Your task to perform on an android device: set the timer Image 0: 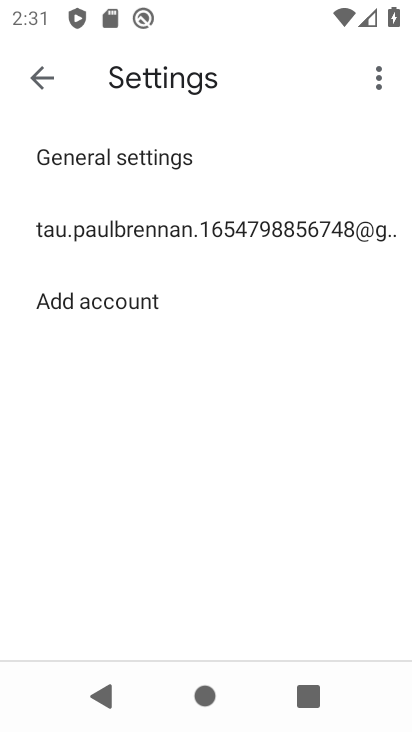
Step 0: press back button
Your task to perform on an android device: set the timer Image 1: 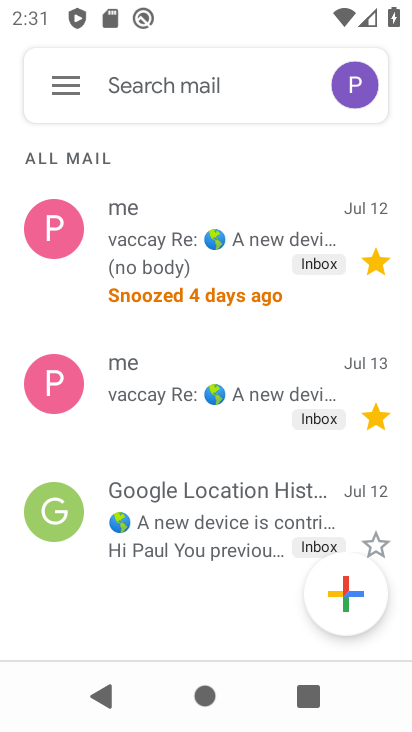
Step 1: press back button
Your task to perform on an android device: set the timer Image 2: 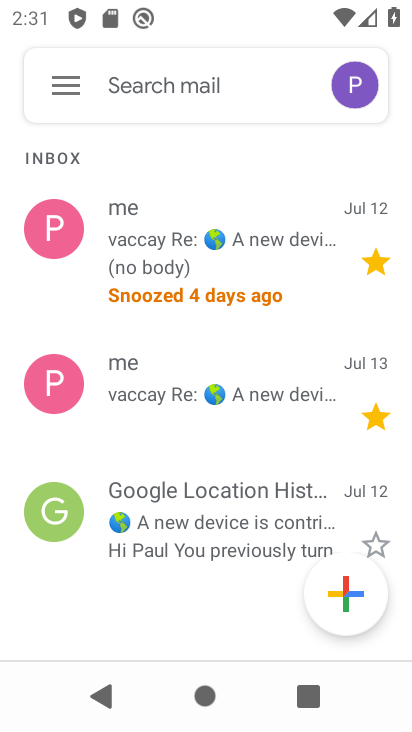
Step 2: press back button
Your task to perform on an android device: set the timer Image 3: 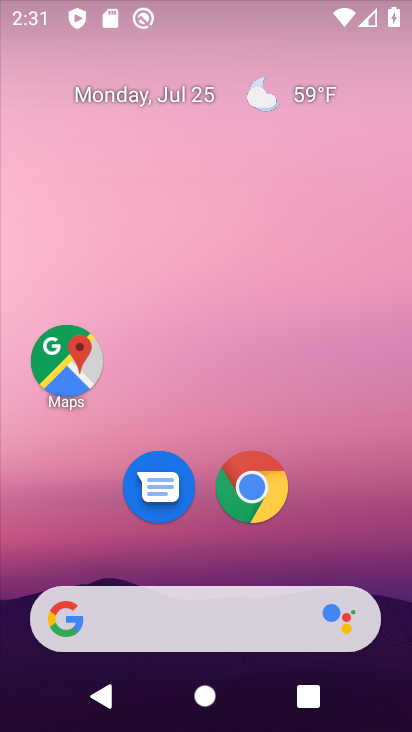
Step 3: drag from (310, 493) to (349, 28)
Your task to perform on an android device: set the timer Image 4: 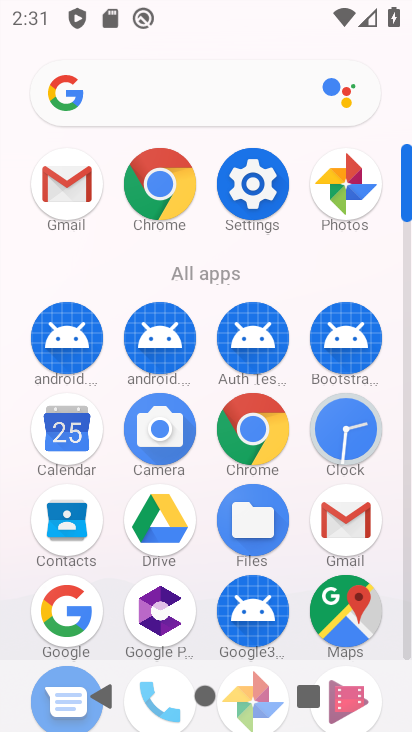
Step 4: click (343, 428)
Your task to perform on an android device: set the timer Image 5: 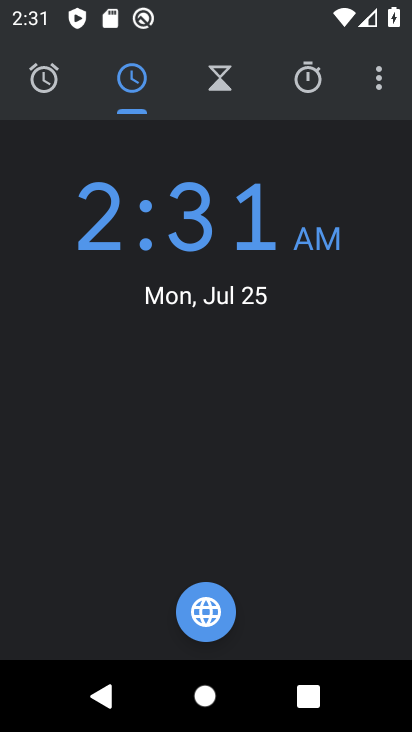
Step 5: click (380, 83)
Your task to perform on an android device: set the timer Image 6: 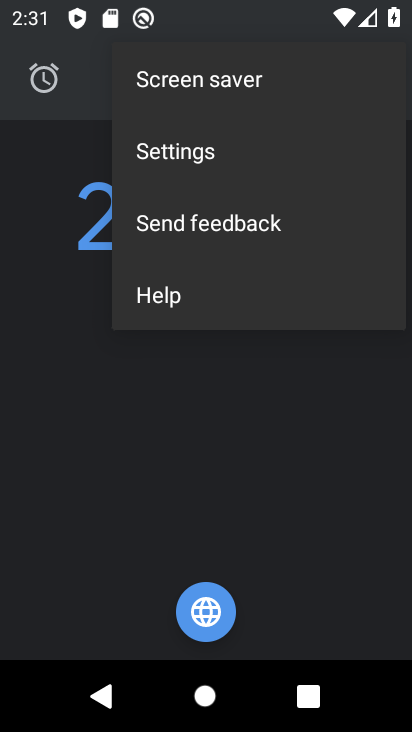
Step 6: click (194, 154)
Your task to perform on an android device: set the timer Image 7: 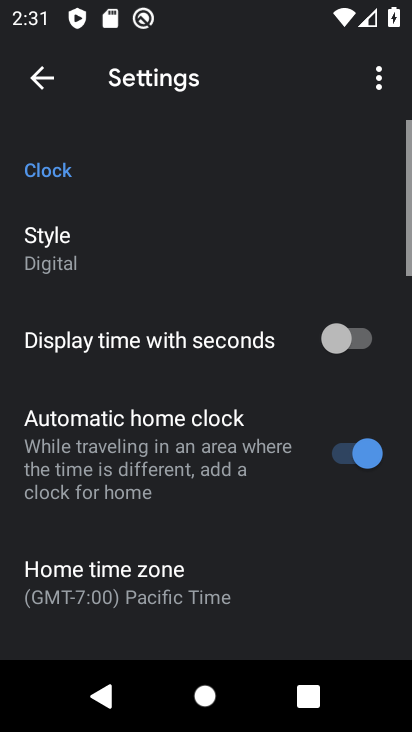
Step 7: click (57, 82)
Your task to perform on an android device: set the timer Image 8: 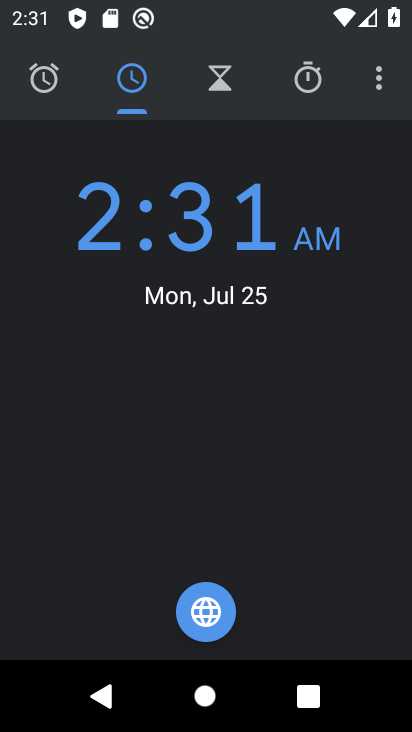
Step 8: click (243, 94)
Your task to perform on an android device: set the timer Image 9: 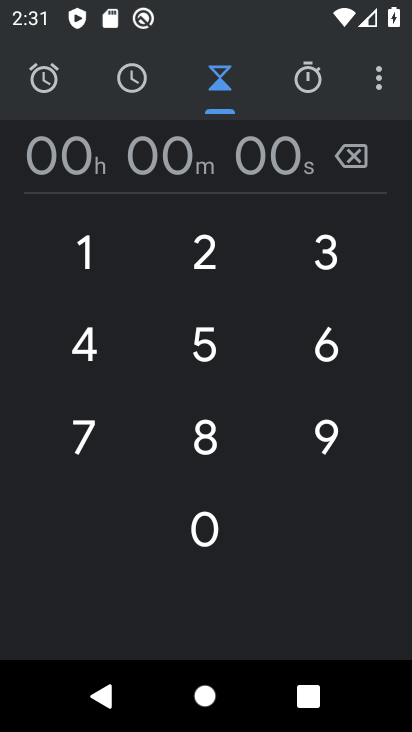
Step 9: click (190, 263)
Your task to perform on an android device: set the timer Image 10: 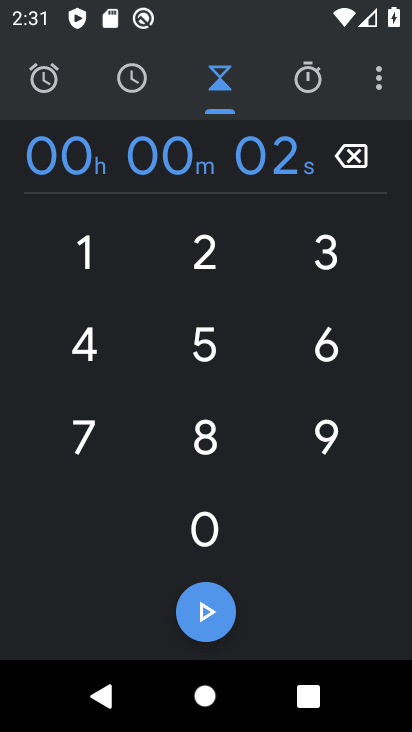
Step 10: click (321, 247)
Your task to perform on an android device: set the timer Image 11: 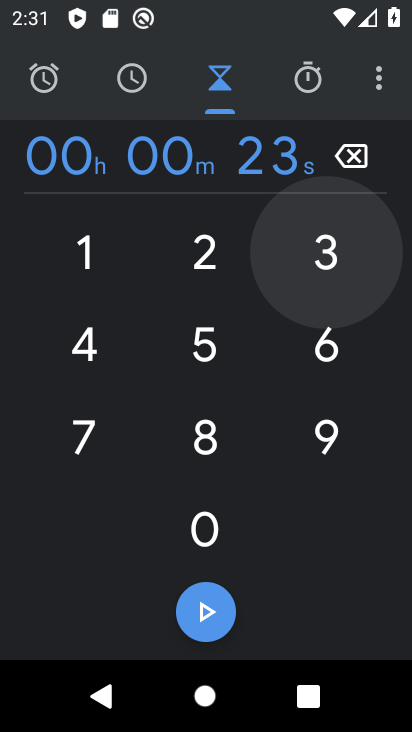
Step 11: click (181, 369)
Your task to perform on an android device: set the timer Image 12: 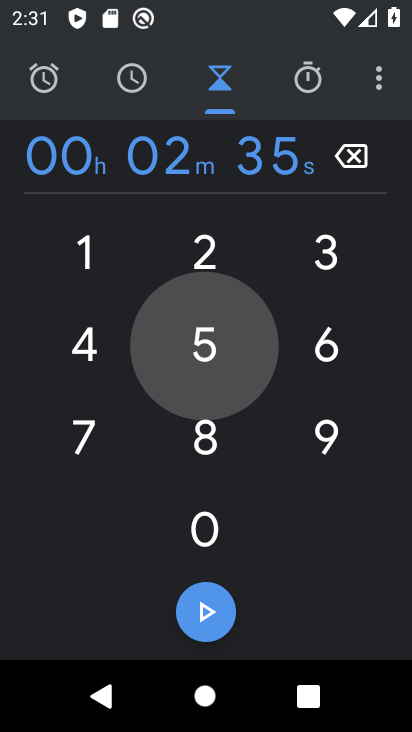
Step 12: click (320, 345)
Your task to perform on an android device: set the timer Image 13: 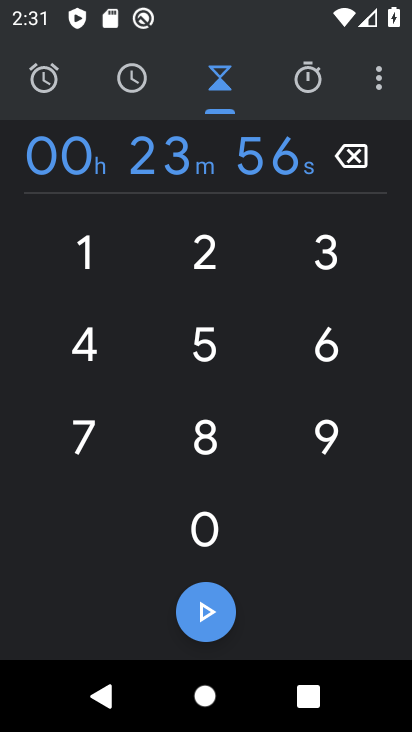
Step 13: click (93, 332)
Your task to perform on an android device: set the timer Image 14: 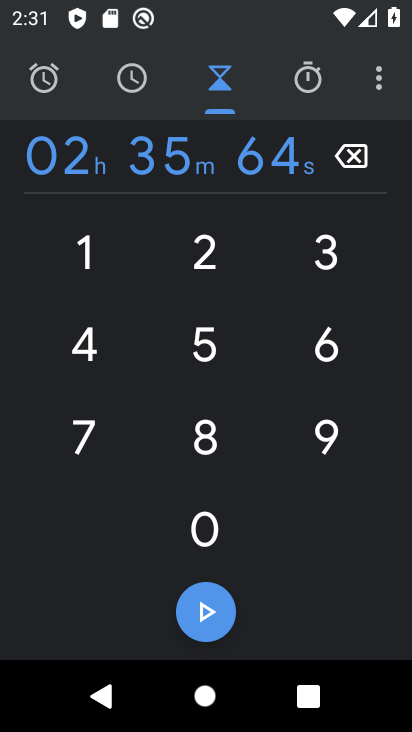
Step 14: task complete